Your task to perform on an android device: change the clock display to digital Image 0: 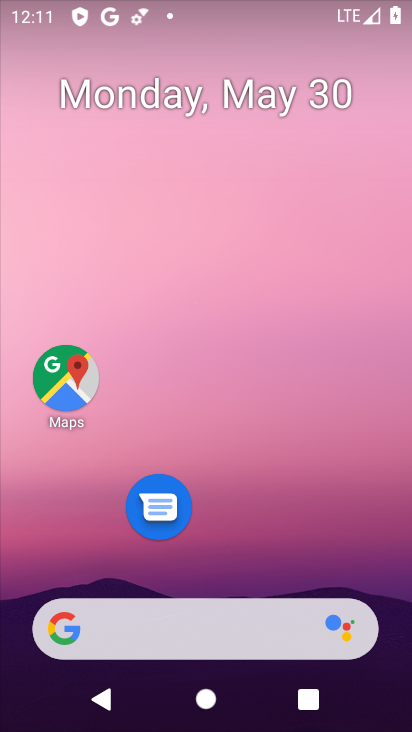
Step 0: drag from (256, 549) to (263, 79)
Your task to perform on an android device: change the clock display to digital Image 1: 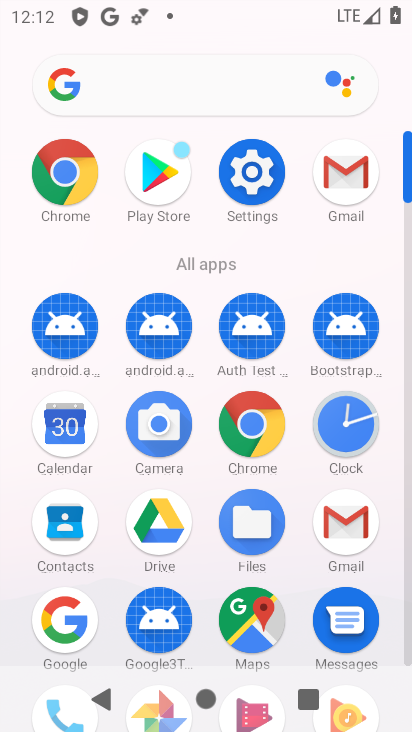
Step 1: click (349, 425)
Your task to perform on an android device: change the clock display to digital Image 2: 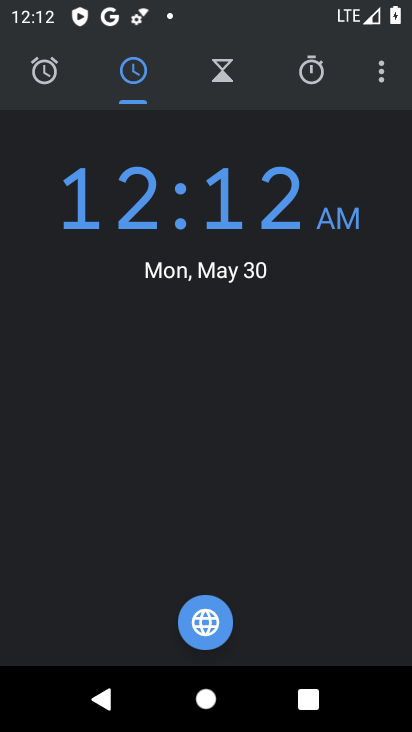
Step 2: click (382, 74)
Your task to perform on an android device: change the clock display to digital Image 3: 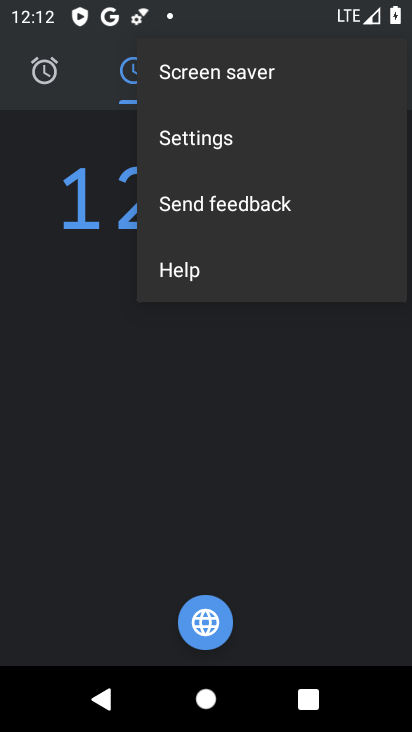
Step 3: click (192, 144)
Your task to perform on an android device: change the clock display to digital Image 4: 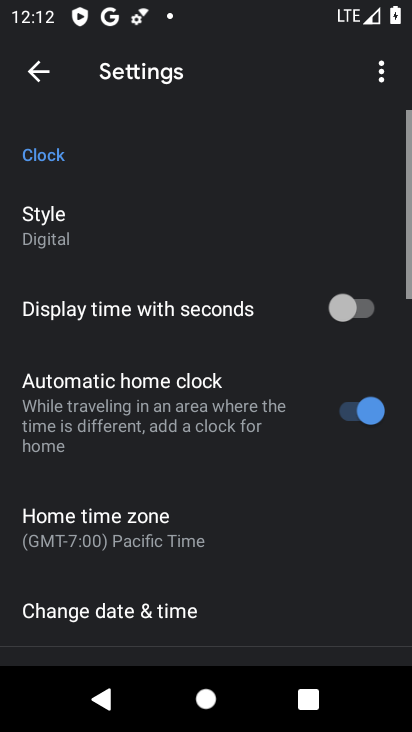
Step 4: click (151, 213)
Your task to perform on an android device: change the clock display to digital Image 5: 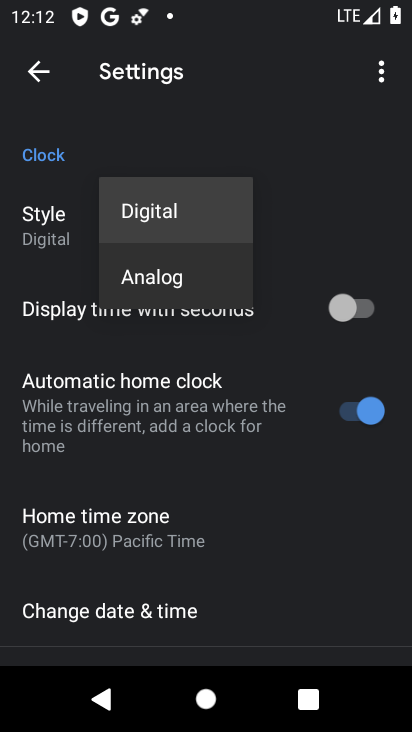
Step 5: click (201, 283)
Your task to perform on an android device: change the clock display to digital Image 6: 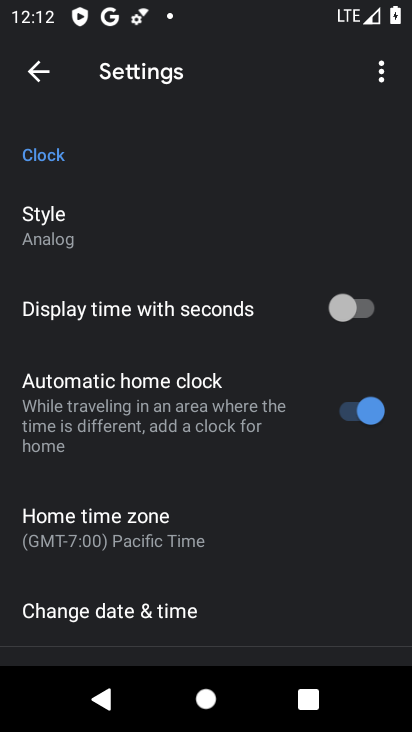
Step 6: task complete